Your task to perform on an android device: turn off data saver in the chrome app Image 0: 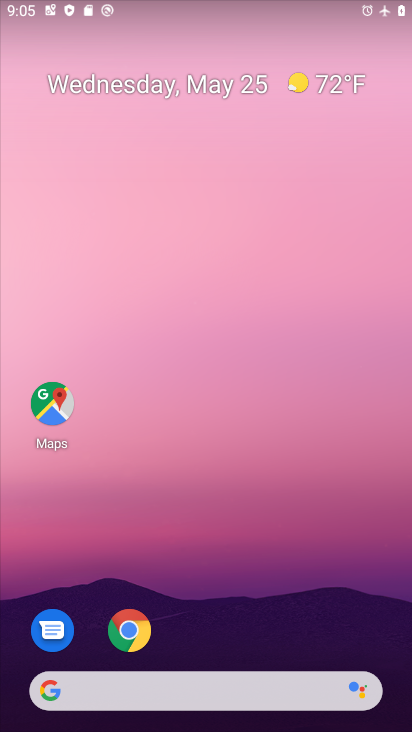
Step 0: click (141, 625)
Your task to perform on an android device: turn off data saver in the chrome app Image 1: 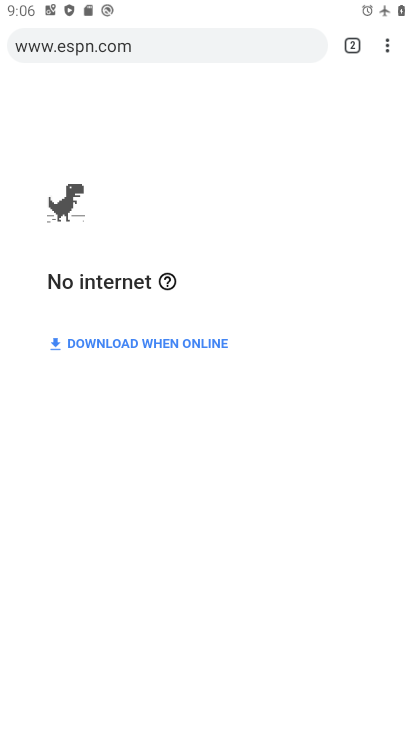
Step 1: click (385, 37)
Your task to perform on an android device: turn off data saver in the chrome app Image 2: 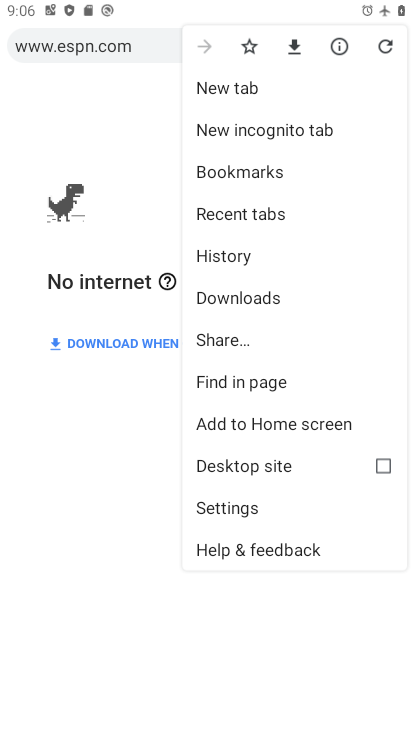
Step 2: click (263, 506)
Your task to perform on an android device: turn off data saver in the chrome app Image 3: 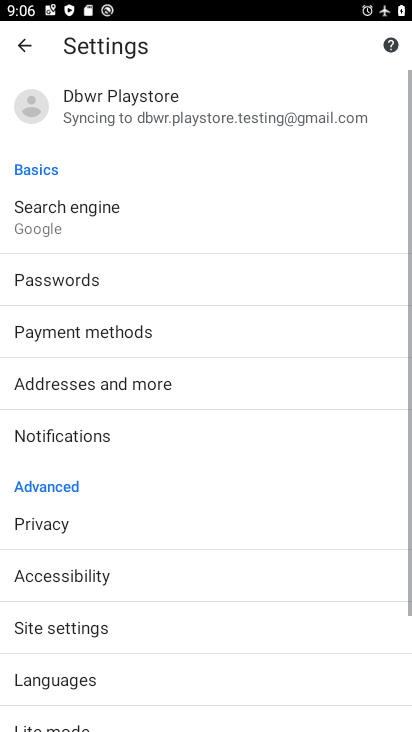
Step 3: drag from (199, 666) to (217, 304)
Your task to perform on an android device: turn off data saver in the chrome app Image 4: 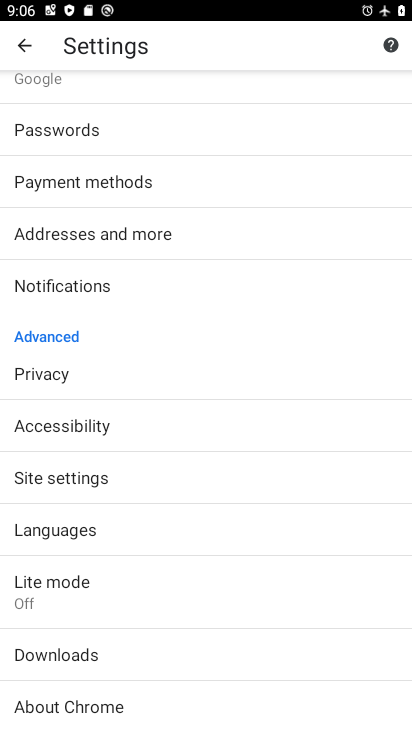
Step 4: click (126, 588)
Your task to perform on an android device: turn off data saver in the chrome app Image 5: 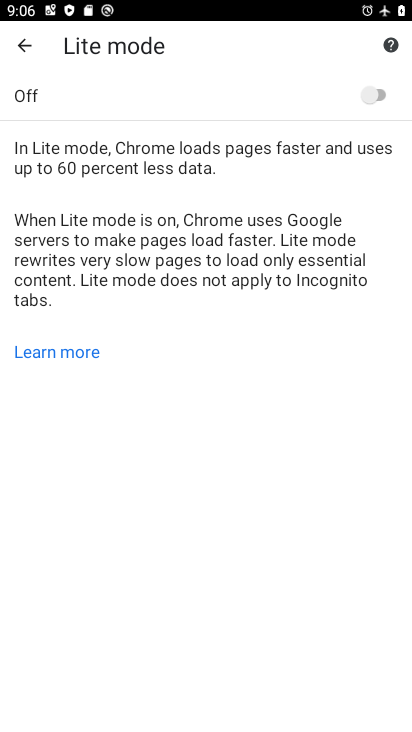
Step 5: click (378, 96)
Your task to perform on an android device: turn off data saver in the chrome app Image 6: 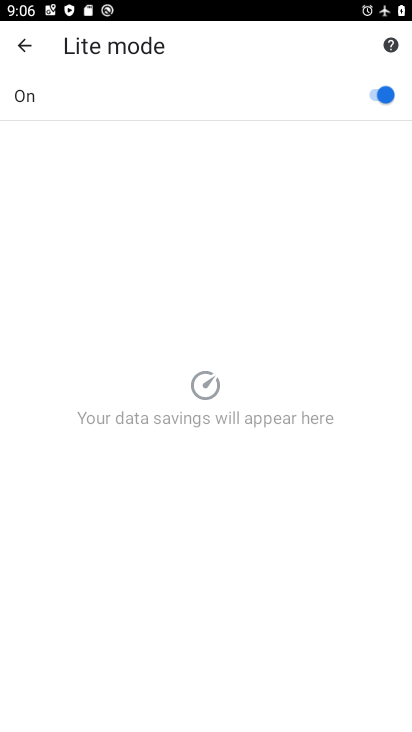
Step 6: click (376, 87)
Your task to perform on an android device: turn off data saver in the chrome app Image 7: 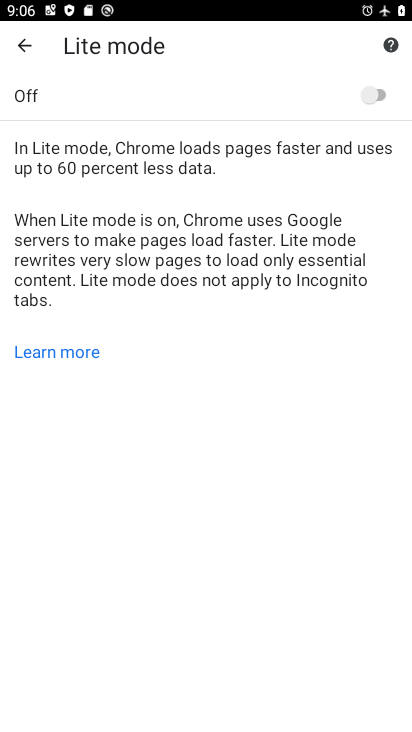
Step 7: task complete